Your task to perform on an android device: create a new album in the google photos Image 0: 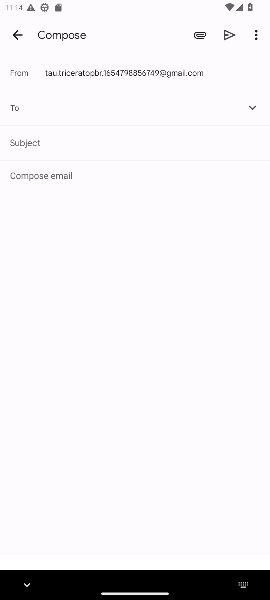
Step 0: press home button
Your task to perform on an android device: create a new album in the google photos Image 1: 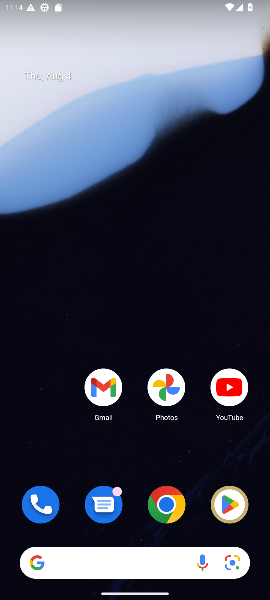
Step 1: click (165, 380)
Your task to perform on an android device: create a new album in the google photos Image 2: 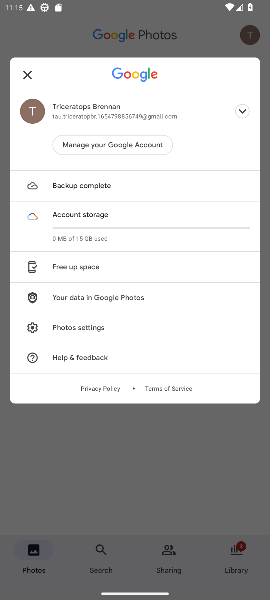
Step 2: click (81, 485)
Your task to perform on an android device: create a new album in the google photos Image 3: 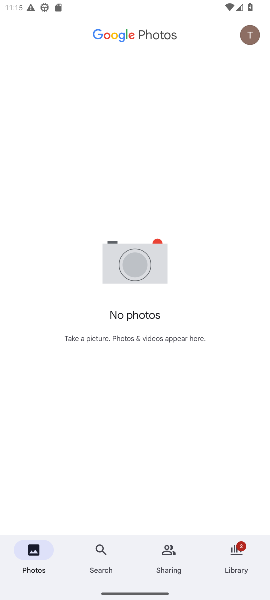
Step 3: click (226, 558)
Your task to perform on an android device: create a new album in the google photos Image 4: 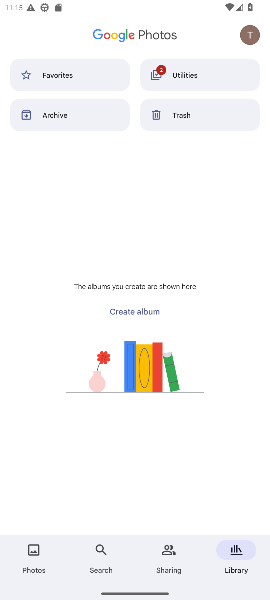
Step 4: click (139, 314)
Your task to perform on an android device: create a new album in the google photos Image 5: 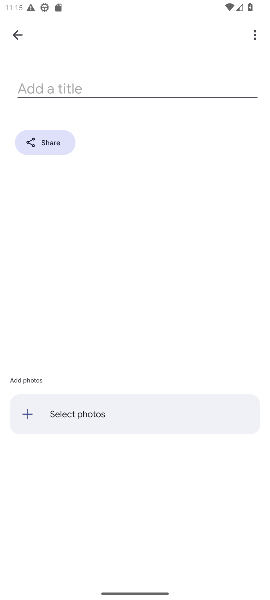
Step 5: click (118, 87)
Your task to perform on an android device: create a new album in the google photos Image 6: 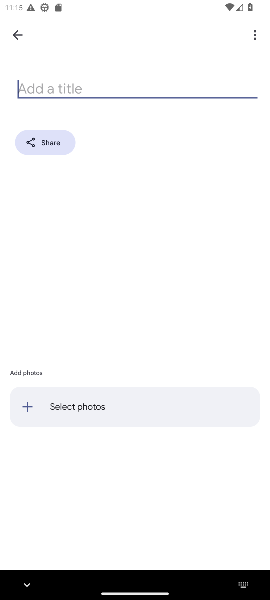
Step 6: type "nmjk"
Your task to perform on an android device: create a new album in the google photos Image 7: 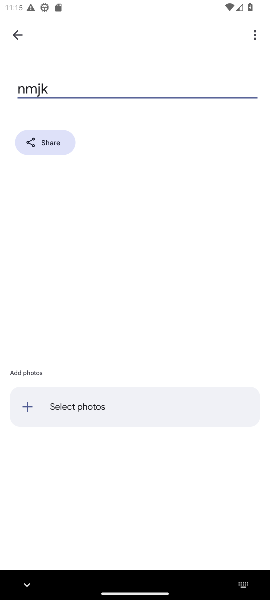
Step 7: click (42, 404)
Your task to perform on an android device: create a new album in the google photos Image 8: 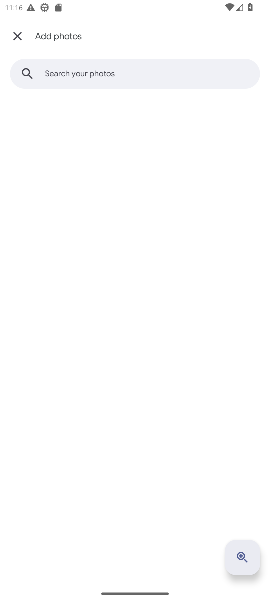
Step 8: task complete